Your task to perform on an android device: turn on bluetooth scan Image 0: 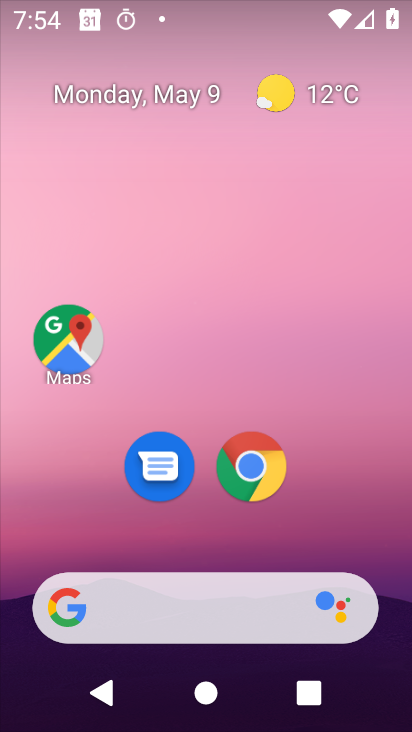
Step 0: drag from (385, 566) to (187, 8)
Your task to perform on an android device: turn on bluetooth scan Image 1: 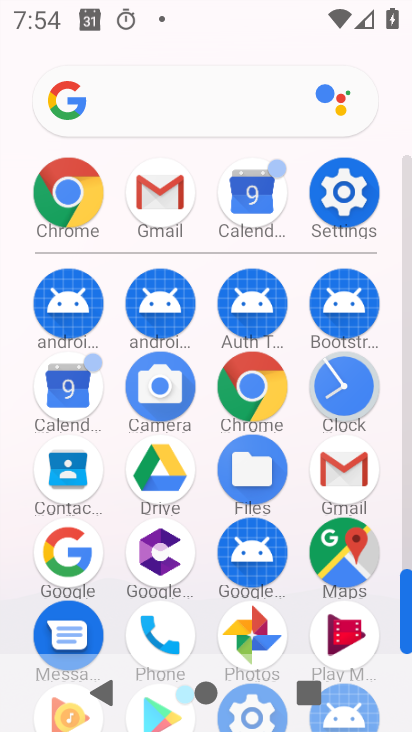
Step 1: click (334, 180)
Your task to perform on an android device: turn on bluetooth scan Image 2: 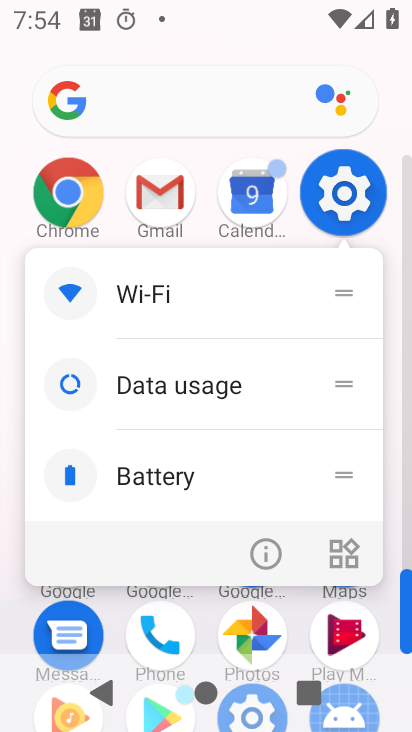
Step 2: click (335, 180)
Your task to perform on an android device: turn on bluetooth scan Image 3: 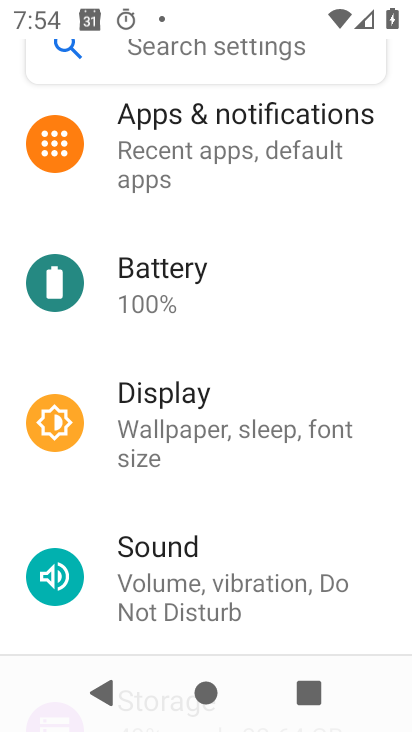
Step 3: click (336, 181)
Your task to perform on an android device: turn on bluetooth scan Image 4: 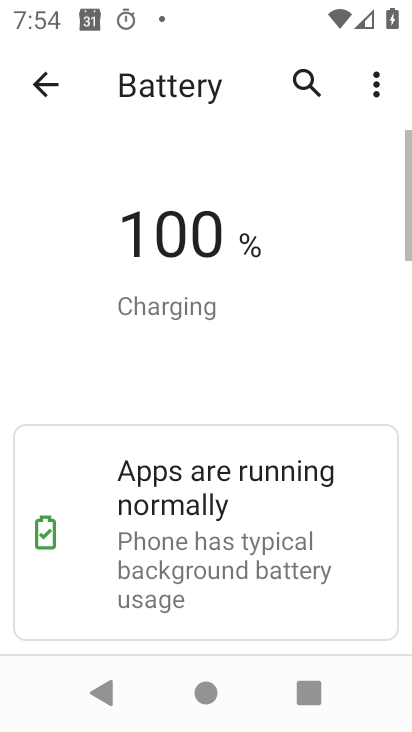
Step 4: click (43, 94)
Your task to perform on an android device: turn on bluetooth scan Image 5: 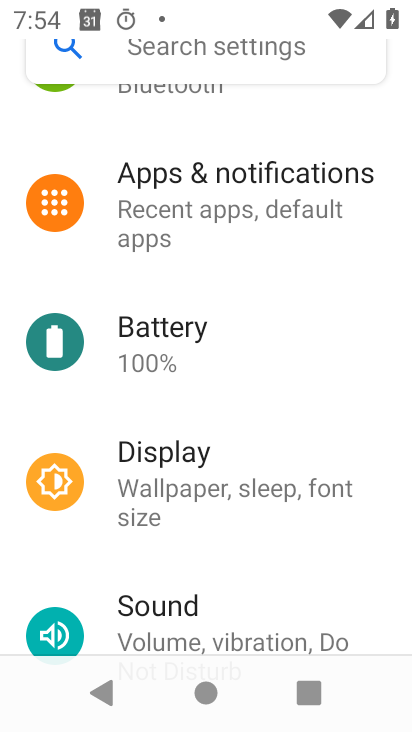
Step 5: drag from (217, 598) to (152, 3)
Your task to perform on an android device: turn on bluetooth scan Image 6: 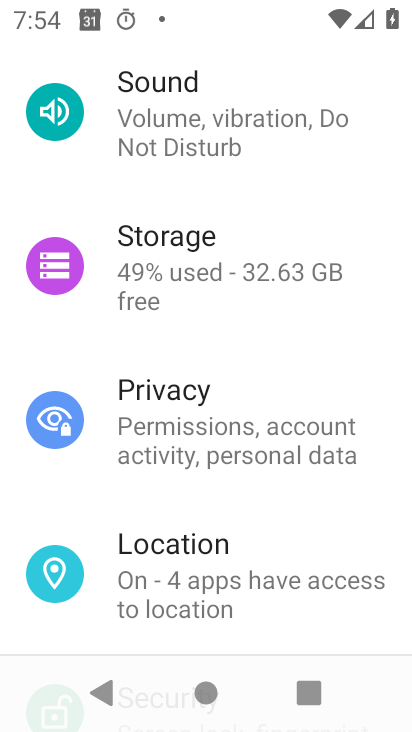
Step 6: drag from (189, 387) to (141, 156)
Your task to perform on an android device: turn on bluetooth scan Image 7: 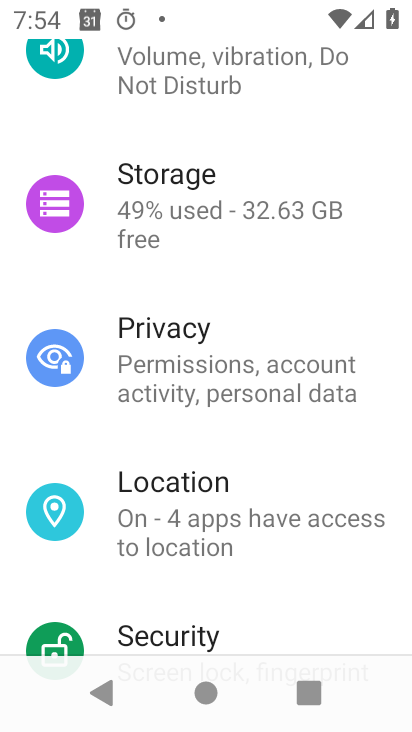
Step 7: click (181, 524)
Your task to perform on an android device: turn on bluetooth scan Image 8: 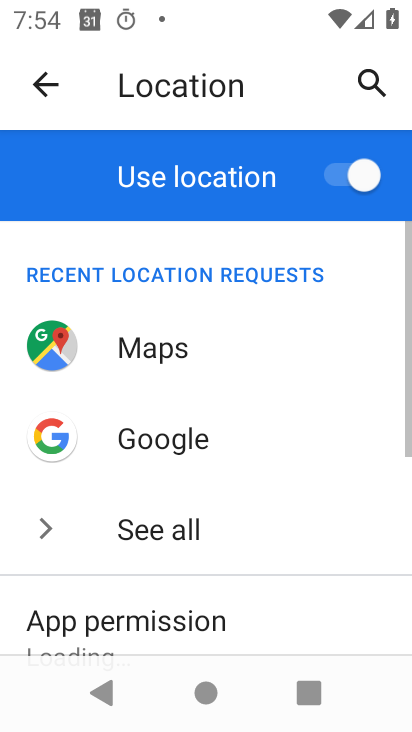
Step 8: drag from (233, 577) to (237, 100)
Your task to perform on an android device: turn on bluetooth scan Image 9: 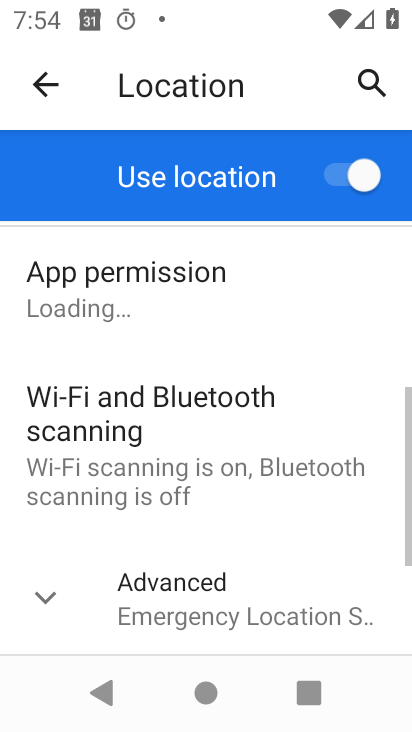
Step 9: drag from (266, 420) to (248, 0)
Your task to perform on an android device: turn on bluetooth scan Image 10: 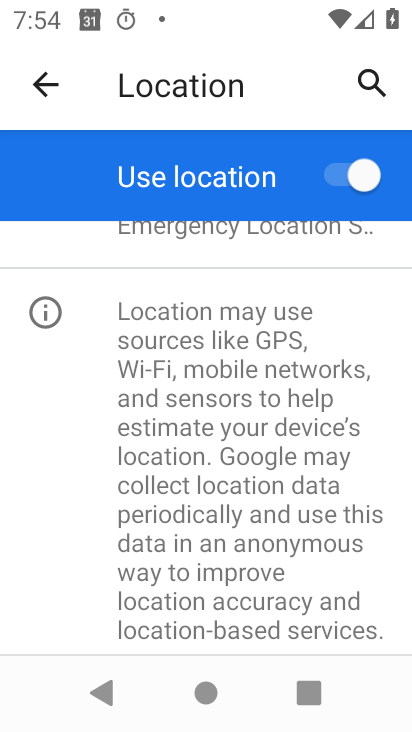
Step 10: drag from (166, 329) to (232, 682)
Your task to perform on an android device: turn on bluetooth scan Image 11: 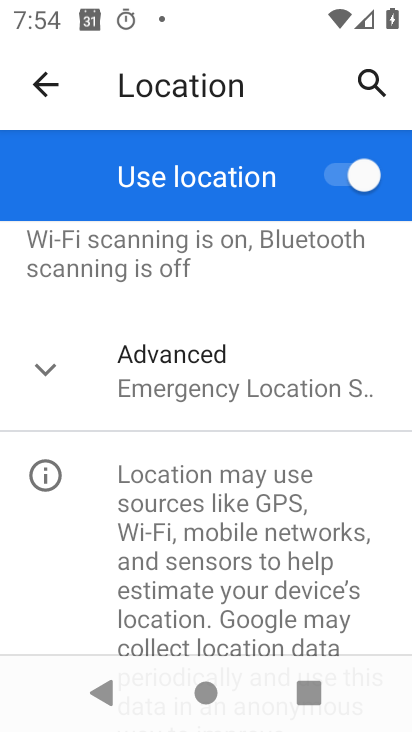
Step 11: drag from (151, 363) to (227, 547)
Your task to perform on an android device: turn on bluetooth scan Image 12: 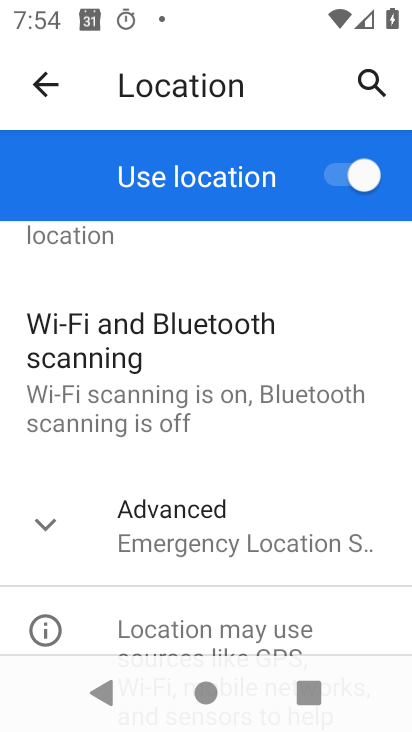
Step 12: click (150, 401)
Your task to perform on an android device: turn on bluetooth scan Image 13: 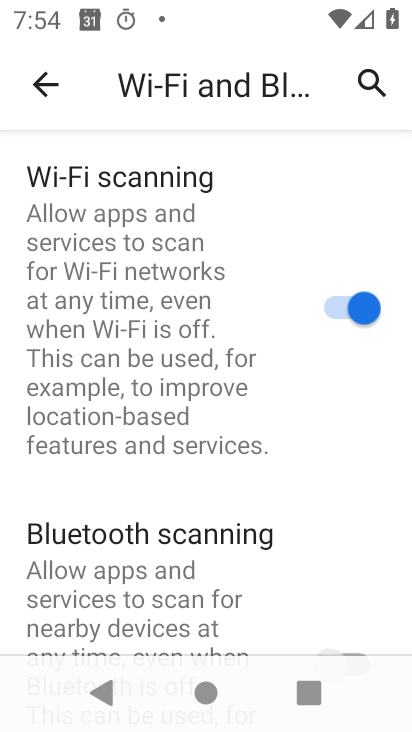
Step 13: drag from (248, 337) to (258, 181)
Your task to perform on an android device: turn on bluetooth scan Image 14: 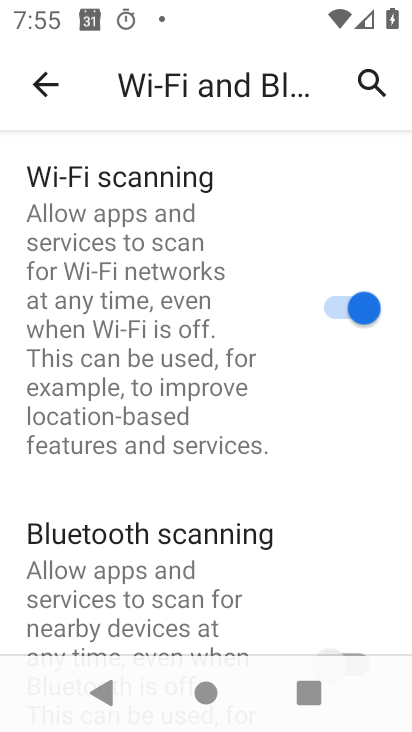
Step 14: drag from (312, 487) to (271, 71)
Your task to perform on an android device: turn on bluetooth scan Image 15: 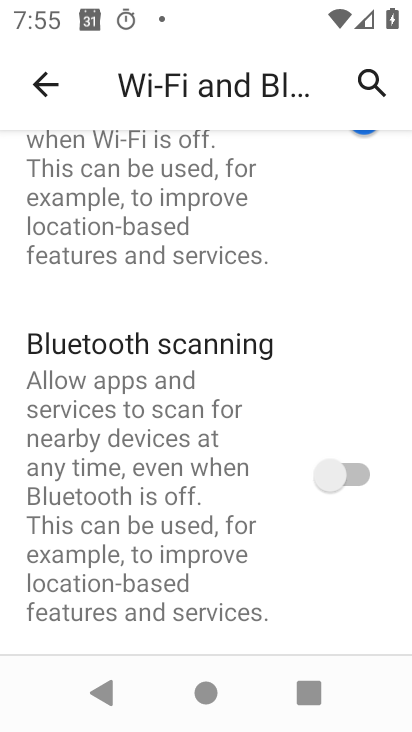
Step 15: click (324, 482)
Your task to perform on an android device: turn on bluetooth scan Image 16: 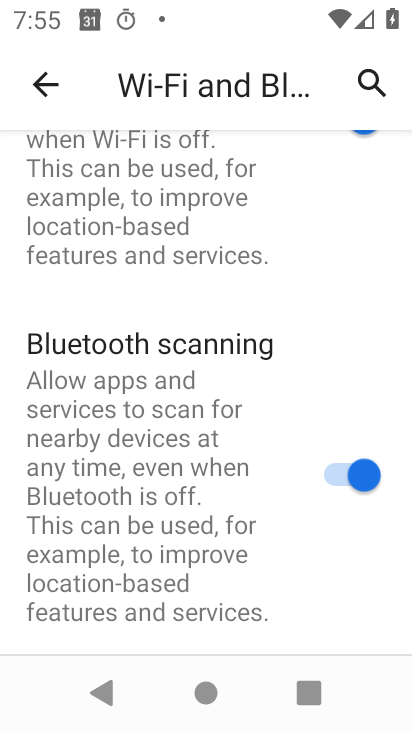
Step 16: task complete